Your task to perform on an android device: turn off location Image 0: 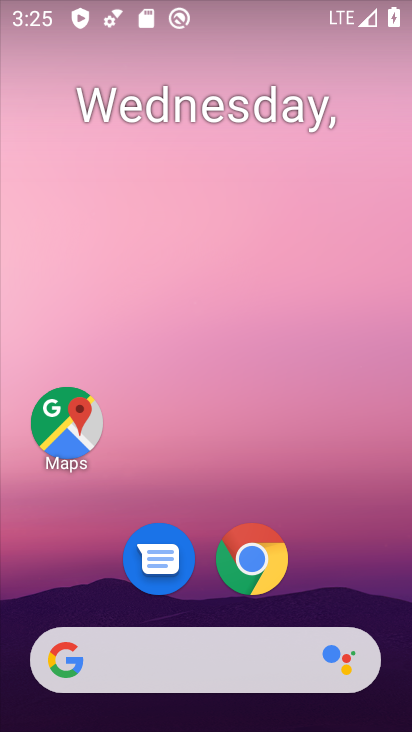
Step 0: drag from (341, 530) to (280, 93)
Your task to perform on an android device: turn off location Image 1: 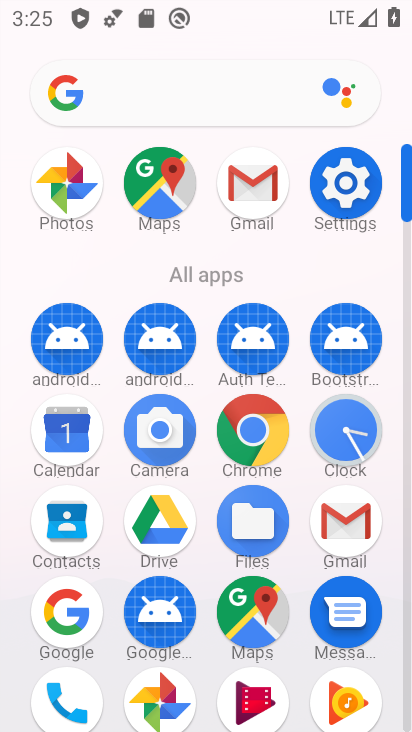
Step 1: click (358, 188)
Your task to perform on an android device: turn off location Image 2: 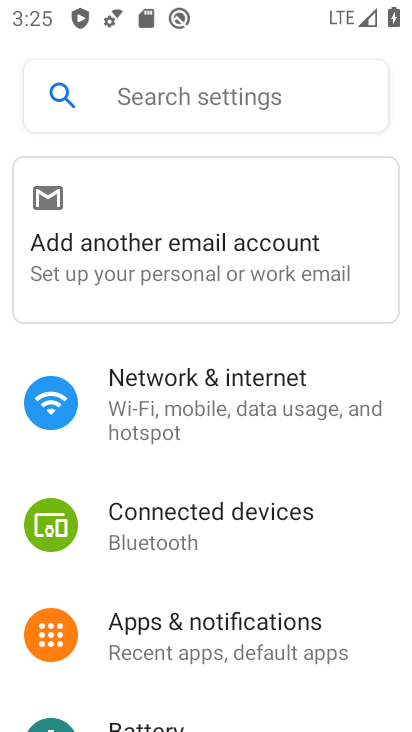
Step 2: drag from (279, 517) to (290, 137)
Your task to perform on an android device: turn off location Image 3: 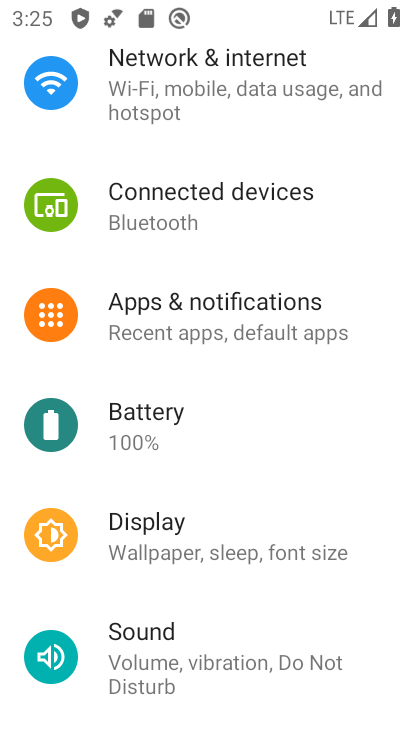
Step 3: drag from (200, 540) to (264, 128)
Your task to perform on an android device: turn off location Image 4: 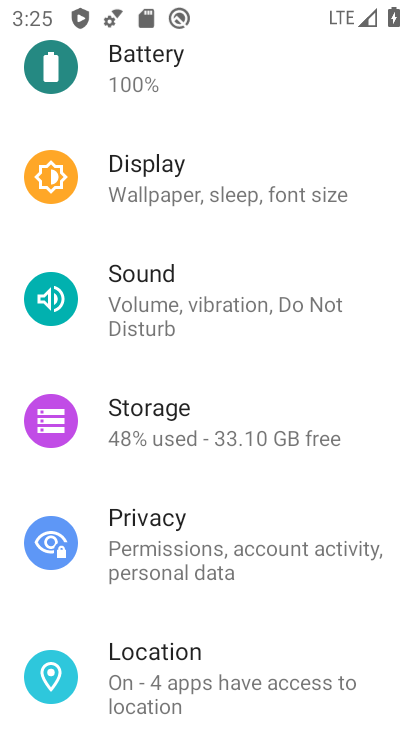
Step 4: drag from (231, 491) to (277, 126)
Your task to perform on an android device: turn off location Image 5: 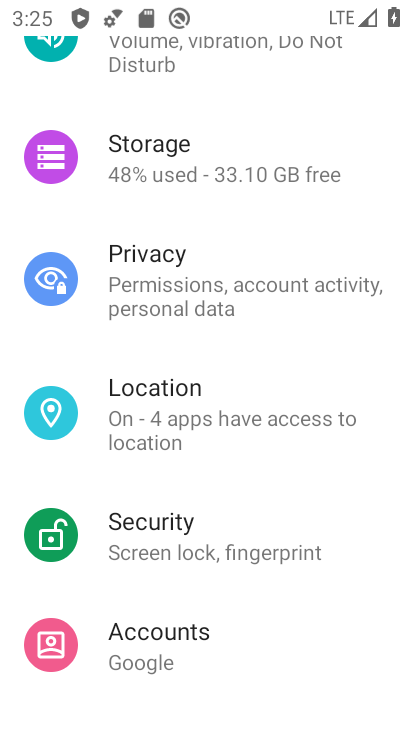
Step 5: click (175, 424)
Your task to perform on an android device: turn off location Image 6: 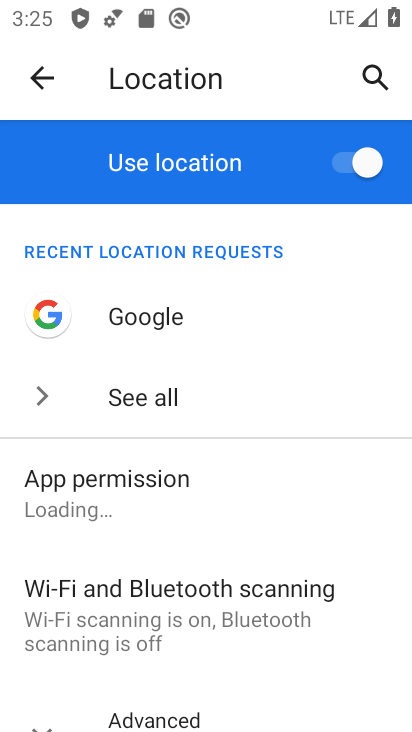
Step 6: click (360, 150)
Your task to perform on an android device: turn off location Image 7: 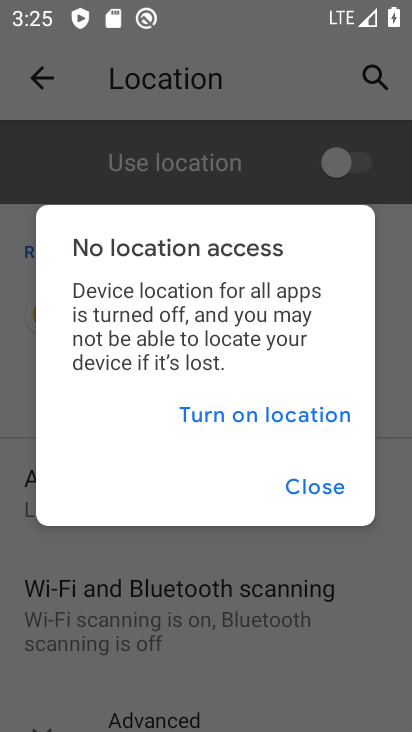
Step 7: task complete